Your task to perform on an android device: Open Youtube and go to "Your channel" Image 0: 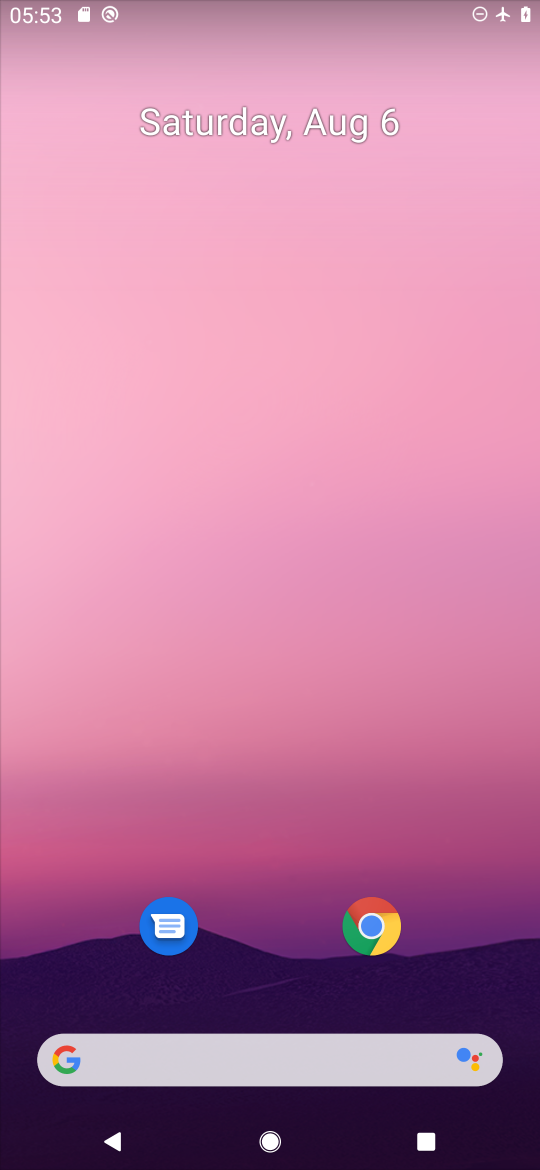
Step 0: drag from (286, 917) to (286, 220)
Your task to perform on an android device: Open Youtube and go to "Your channel" Image 1: 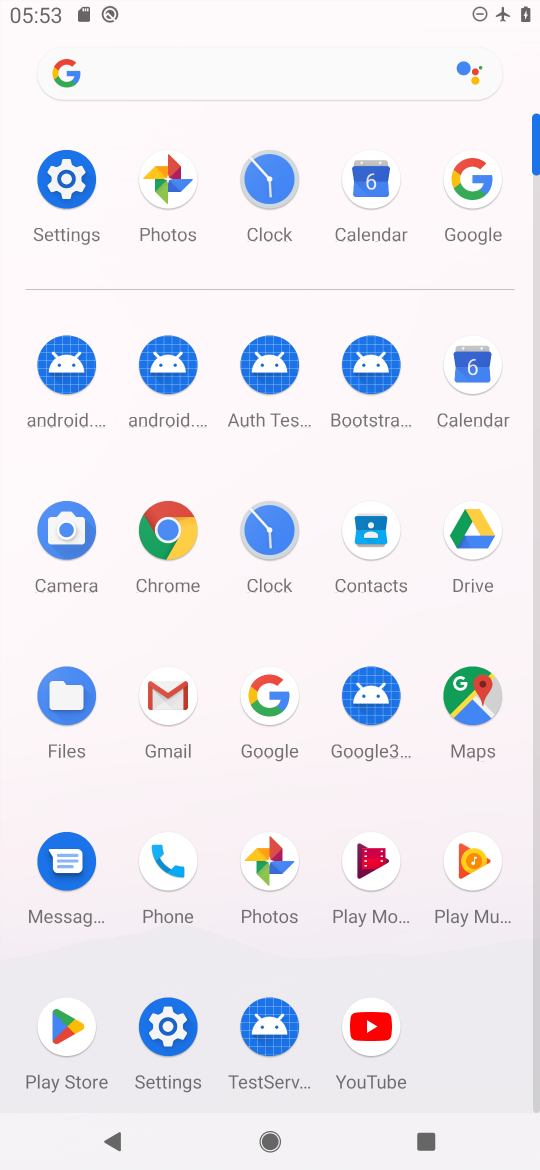
Step 1: click (370, 997)
Your task to perform on an android device: Open Youtube and go to "Your channel" Image 2: 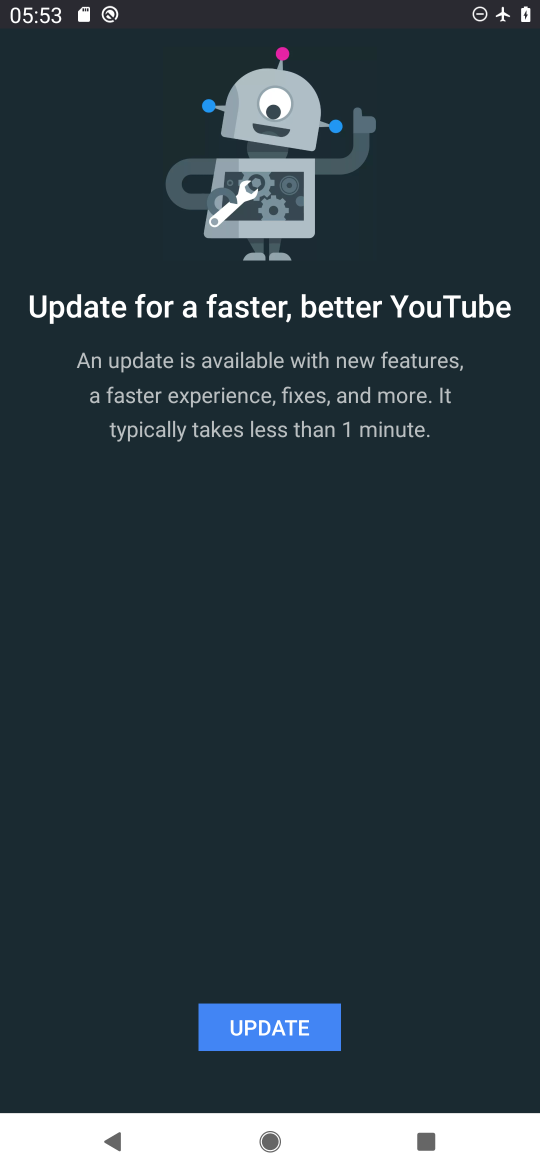
Step 2: click (292, 1017)
Your task to perform on an android device: Open Youtube and go to "Your channel" Image 3: 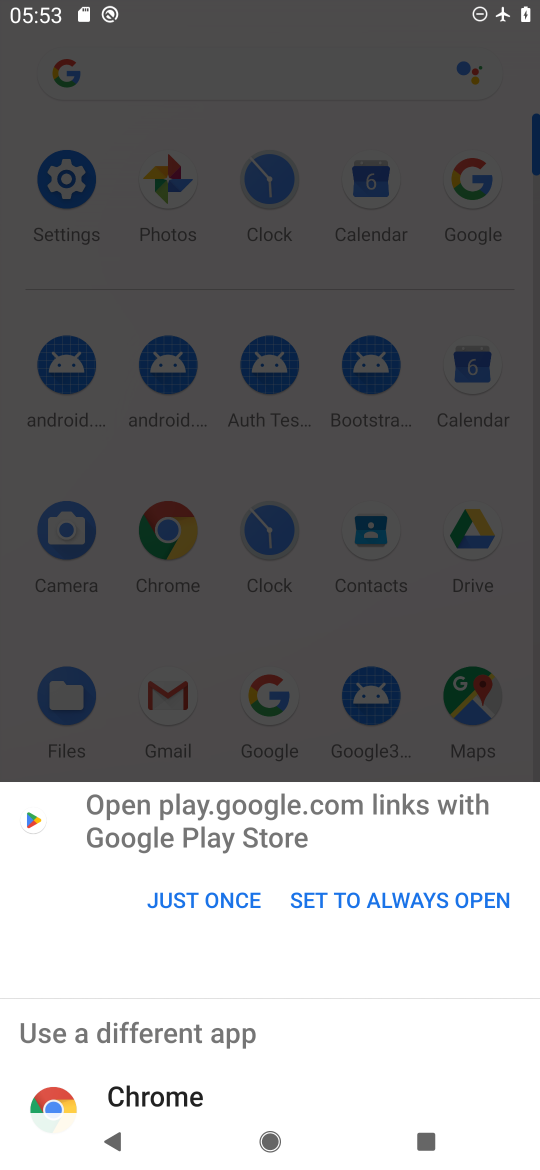
Step 3: click (212, 911)
Your task to perform on an android device: Open Youtube and go to "Your channel" Image 4: 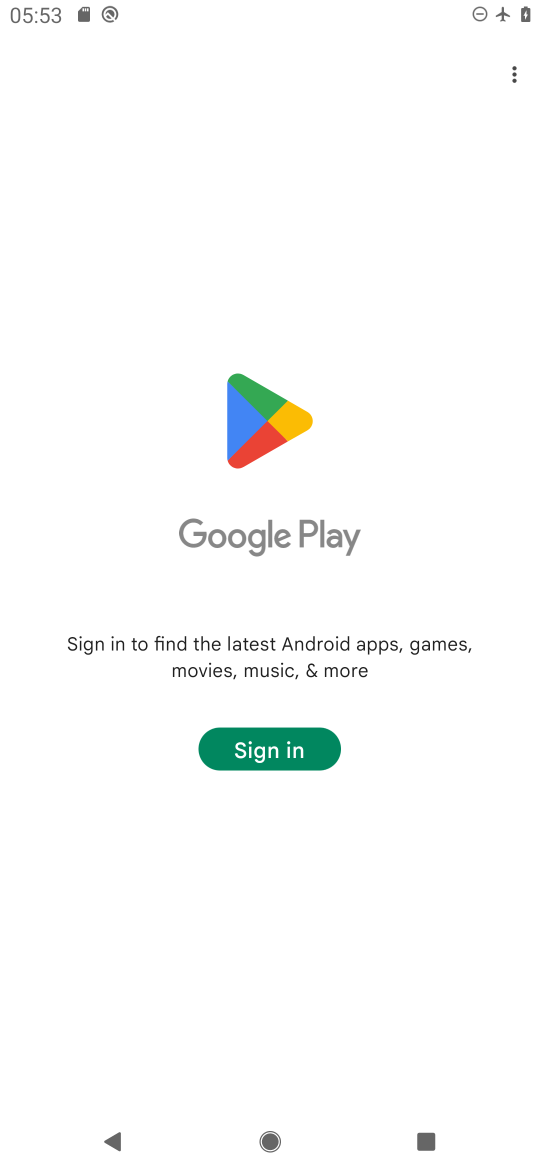
Step 4: task complete